Your task to perform on an android device: check data usage Image 0: 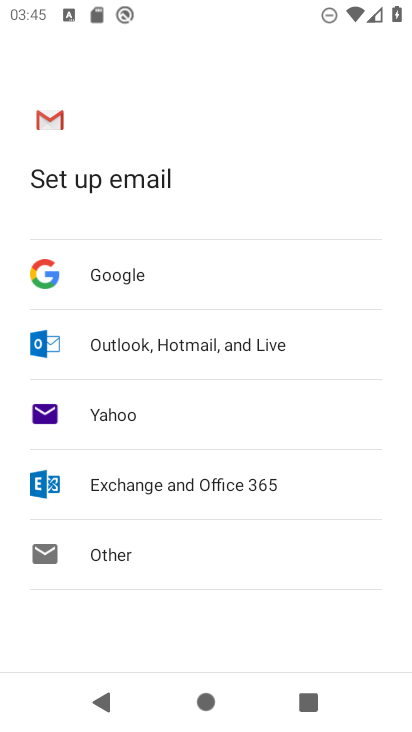
Step 0: press home button
Your task to perform on an android device: check data usage Image 1: 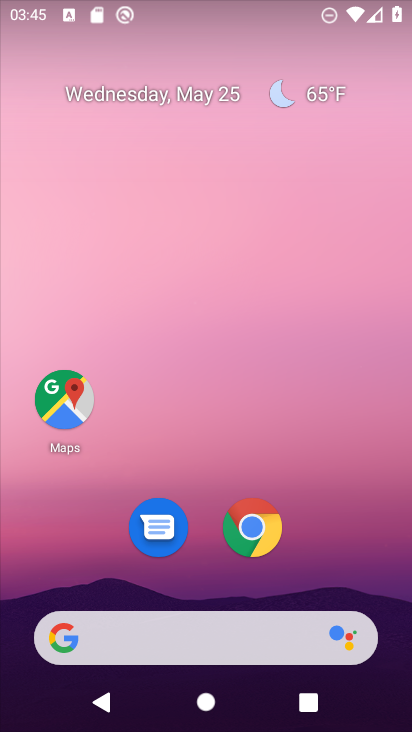
Step 1: drag from (283, 580) to (282, 63)
Your task to perform on an android device: check data usage Image 2: 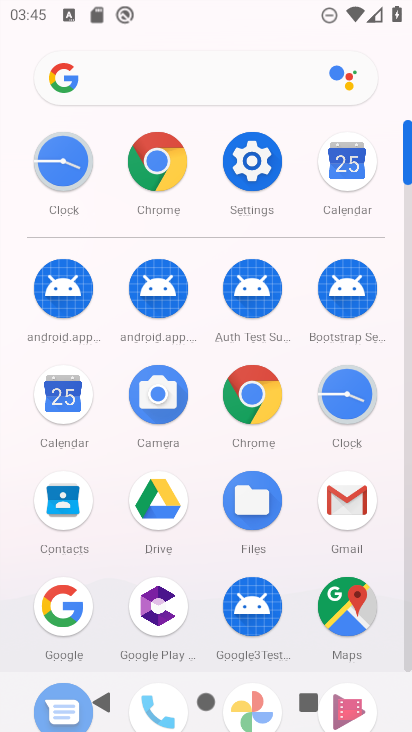
Step 2: click (262, 172)
Your task to perform on an android device: check data usage Image 3: 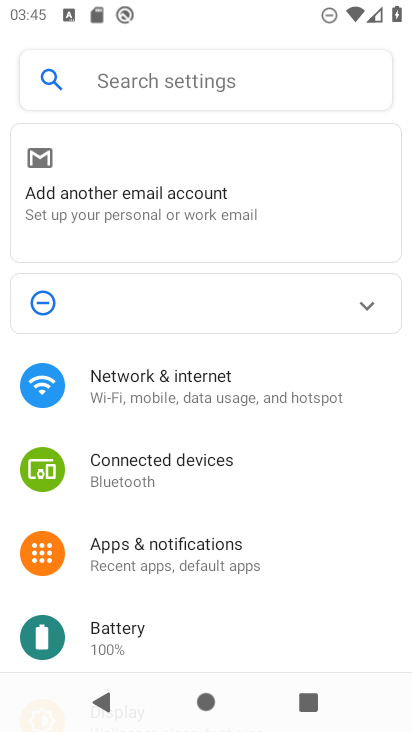
Step 3: click (219, 411)
Your task to perform on an android device: check data usage Image 4: 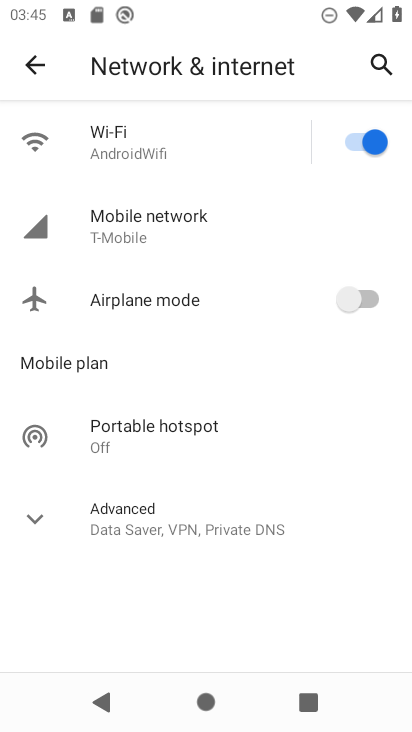
Step 4: click (144, 240)
Your task to perform on an android device: check data usage Image 5: 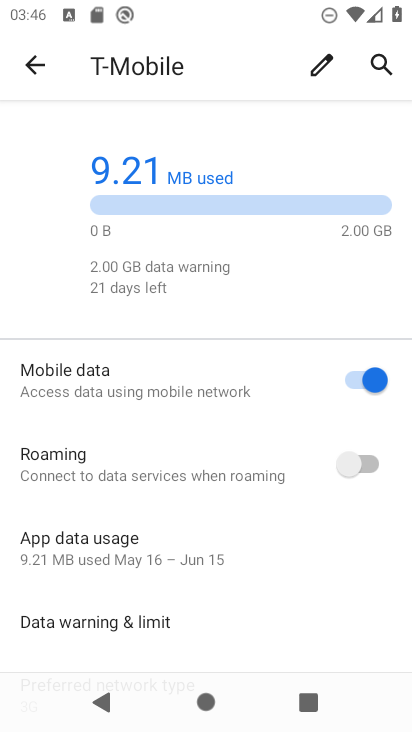
Step 5: task complete